Your task to perform on an android device: Open Yahoo.com Image 0: 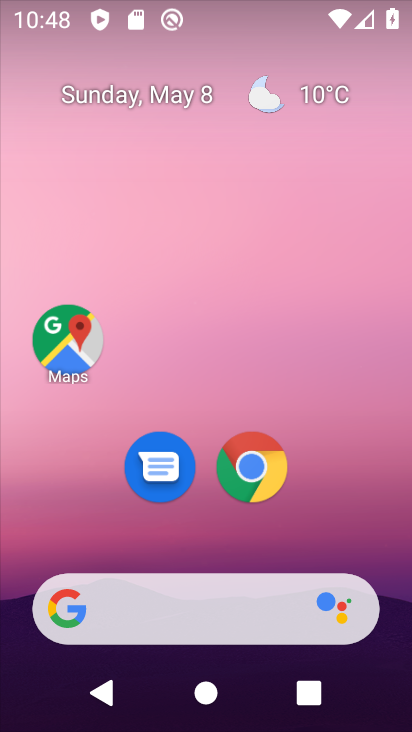
Step 0: click (269, 467)
Your task to perform on an android device: Open Yahoo.com Image 1: 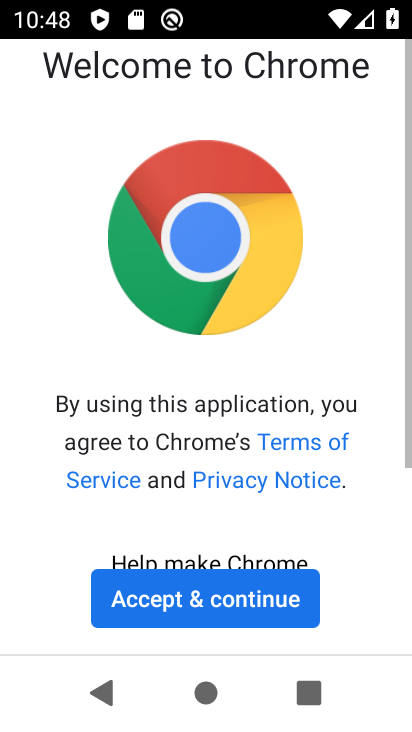
Step 1: click (269, 467)
Your task to perform on an android device: Open Yahoo.com Image 2: 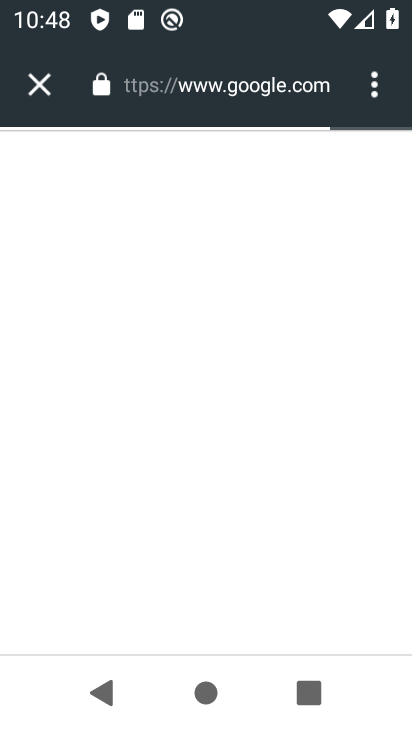
Step 2: click (35, 86)
Your task to perform on an android device: Open Yahoo.com Image 3: 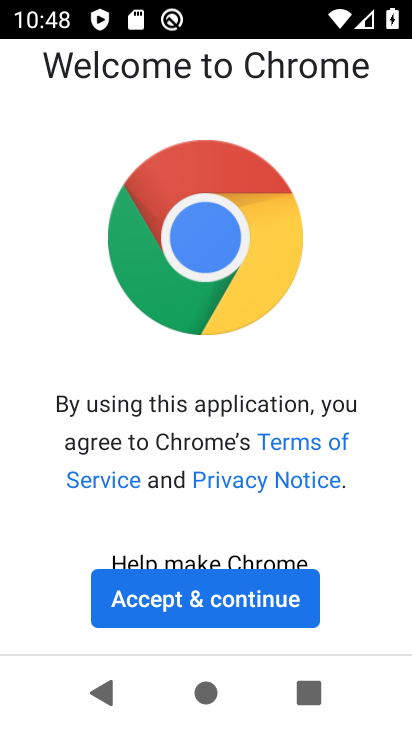
Step 3: click (214, 610)
Your task to perform on an android device: Open Yahoo.com Image 4: 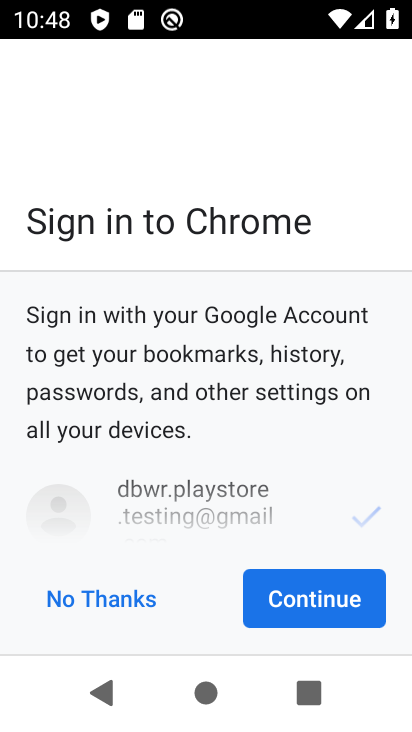
Step 4: click (291, 616)
Your task to perform on an android device: Open Yahoo.com Image 5: 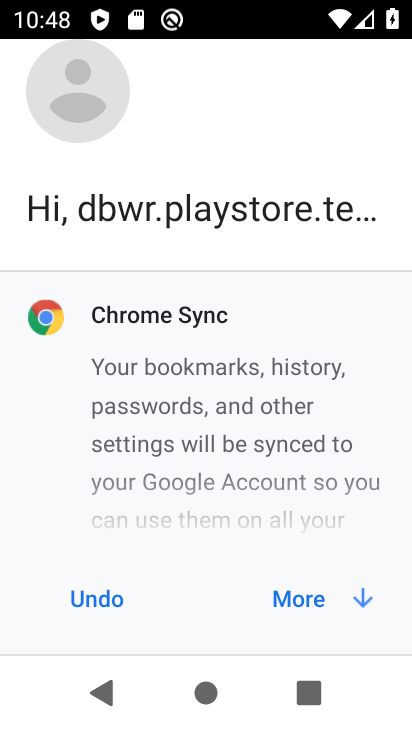
Step 5: click (296, 603)
Your task to perform on an android device: Open Yahoo.com Image 6: 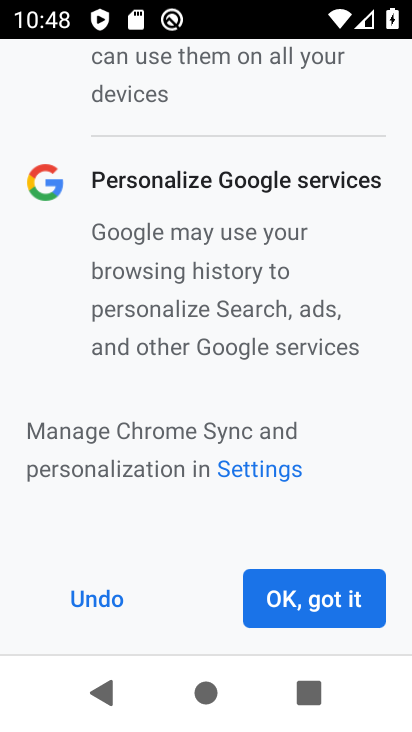
Step 6: click (296, 603)
Your task to perform on an android device: Open Yahoo.com Image 7: 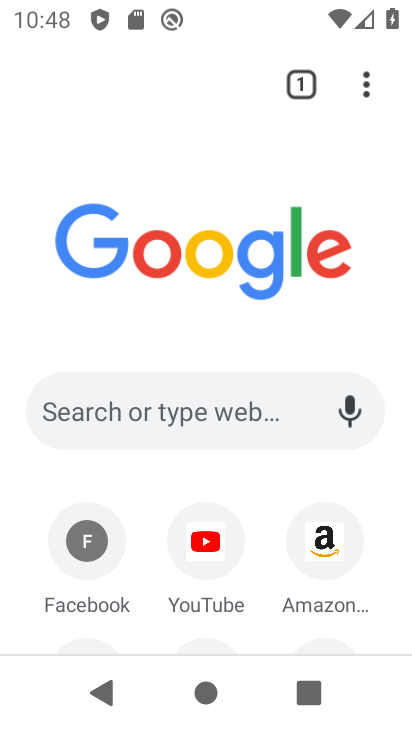
Step 7: click (175, 395)
Your task to perform on an android device: Open Yahoo.com Image 8: 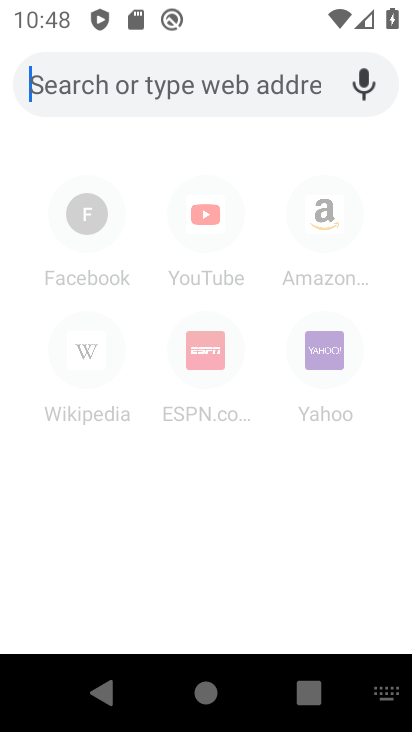
Step 8: type "yahoo.com"
Your task to perform on an android device: Open Yahoo.com Image 9: 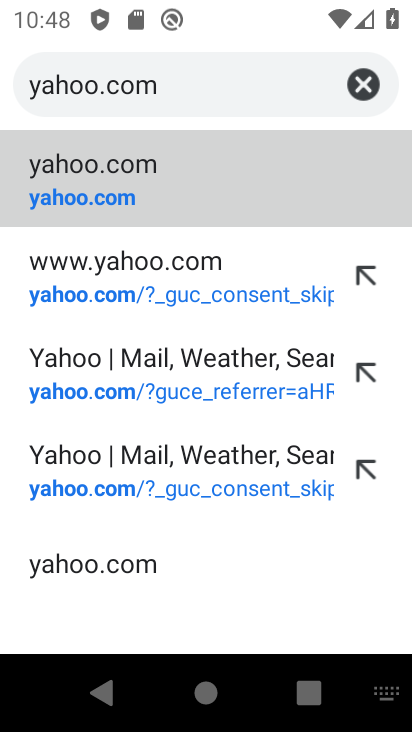
Step 9: click (56, 197)
Your task to perform on an android device: Open Yahoo.com Image 10: 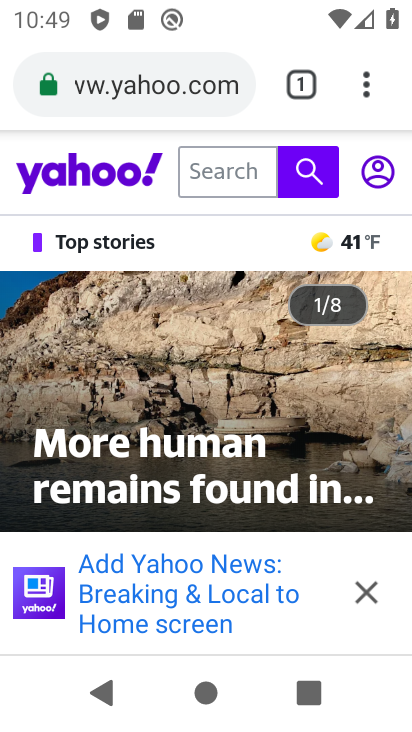
Step 10: task complete